Your task to perform on an android device: Turn off the flashlight Image 0: 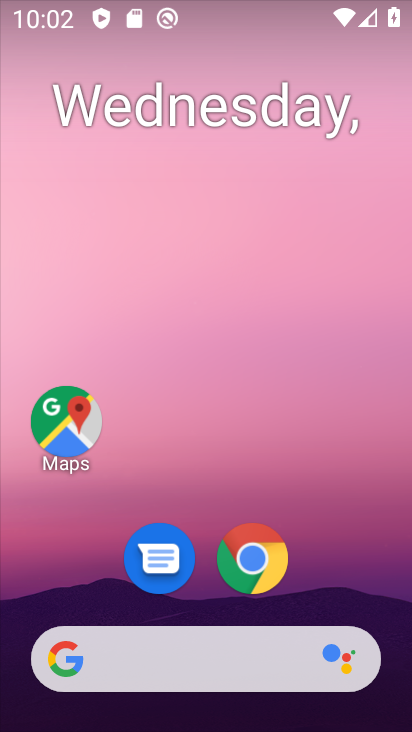
Step 0: drag from (73, 497) to (230, 174)
Your task to perform on an android device: Turn off the flashlight Image 1: 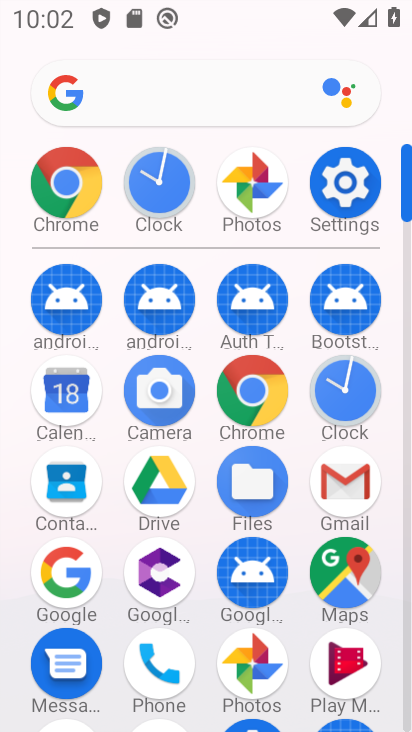
Step 1: click (334, 194)
Your task to perform on an android device: Turn off the flashlight Image 2: 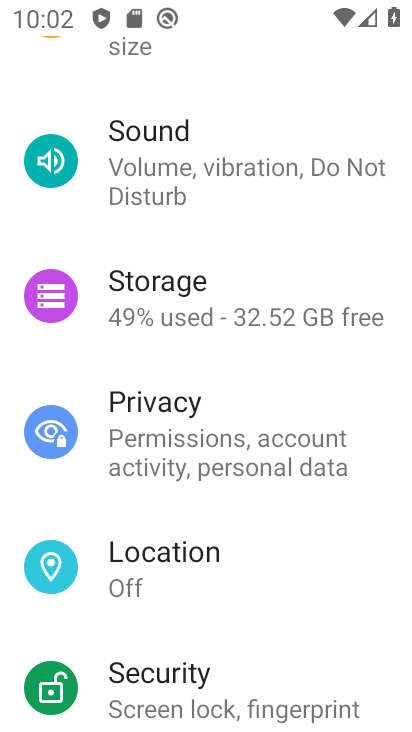
Step 2: task complete